Your task to perform on an android device: Open the Play Movies app and select the watchlist tab. Image 0: 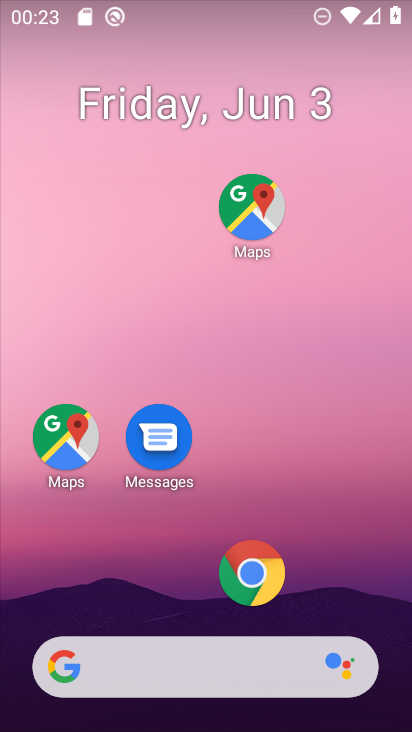
Step 0: drag from (353, 593) to (347, 329)
Your task to perform on an android device: Open the Play Movies app and select the watchlist tab. Image 1: 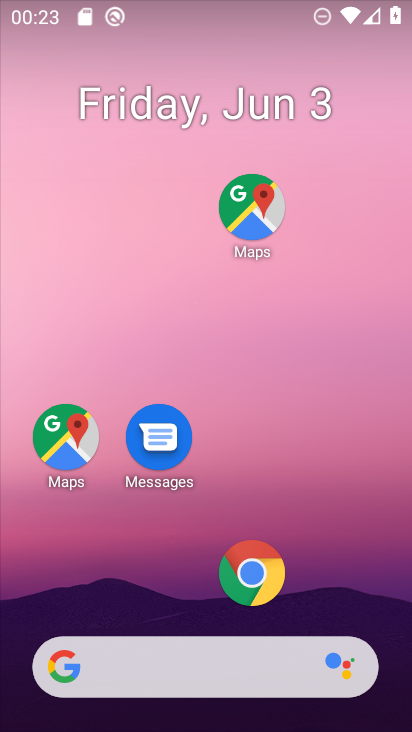
Step 1: drag from (314, 581) to (301, 309)
Your task to perform on an android device: Open the Play Movies app and select the watchlist tab. Image 2: 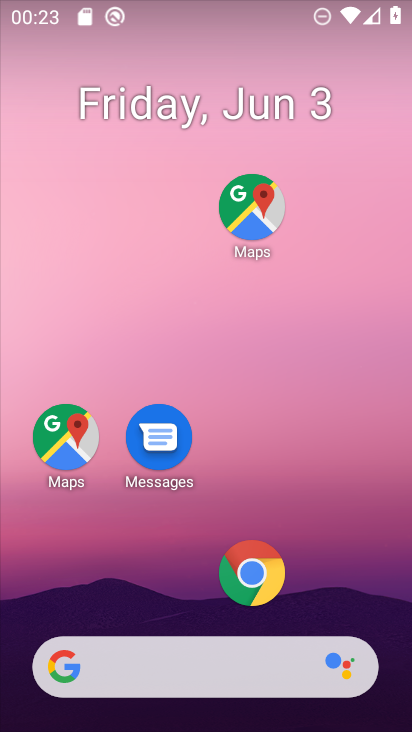
Step 2: drag from (174, 526) to (215, 48)
Your task to perform on an android device: Open the Play Movies app and select the watchlist tab. Image 3: 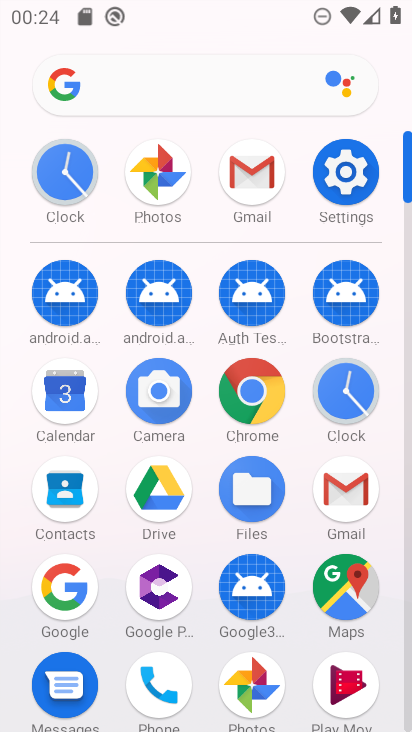
Step 3: click (334, 677)
Your task to perform on an android device: Open the Play Movies app and select the watchlist tab. Image 4: 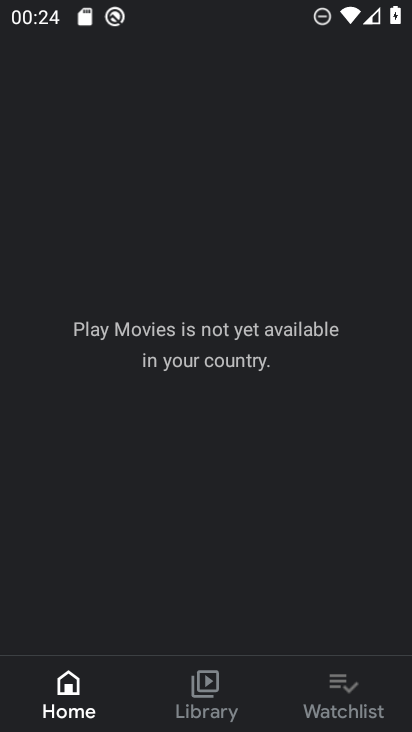
Step 4: click (344, 690)
Your task to perform on an android device: Open the Play Movies app and select the watchlist tab. Image 5: 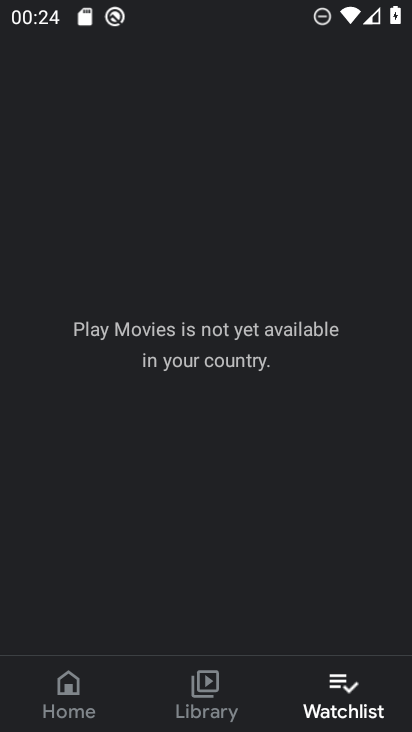
Step 5: task complete